Your task to perform on an android device: turn on the 24-hour format for clock Image 0: 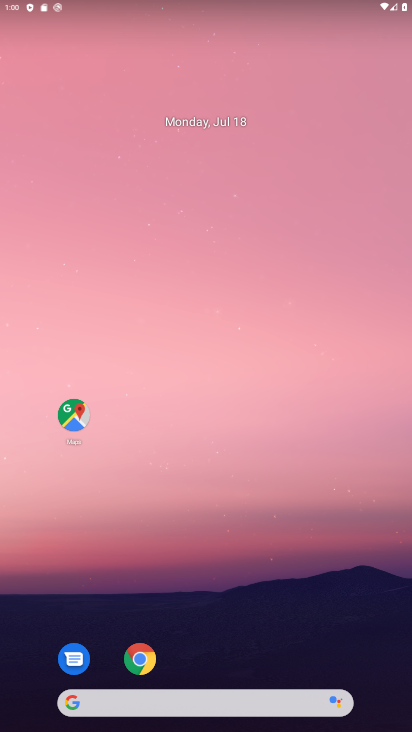
Step 0: drag from (265, 629) to (188, 134)
Your task to perform on an android device: turn on the 24-hour format for clock Image 1: 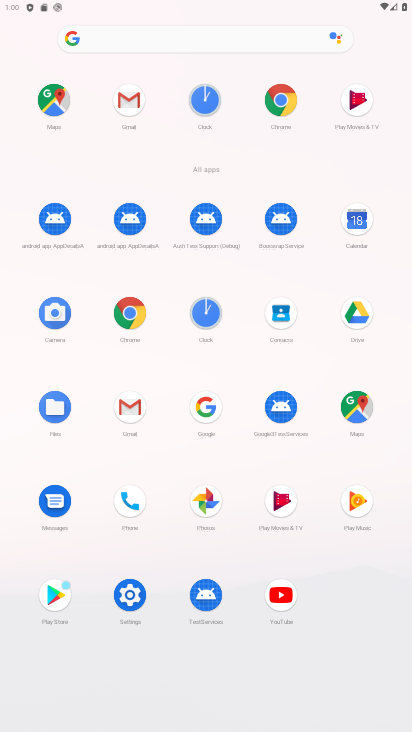
Step 1: click (210, 311)
Your task to perform on an android device: turn on the 24-hour format for clock Image 2: 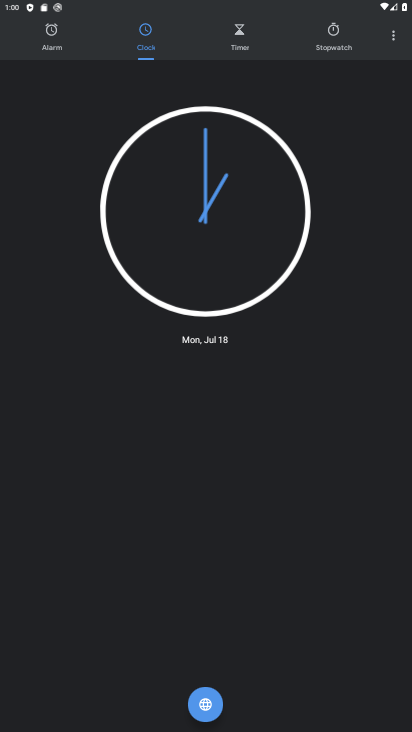
Step 2: drag from (388, 37) to (313, 67)
Your task to perform on an android device: turn on the 24-hour format for clock Image 3: 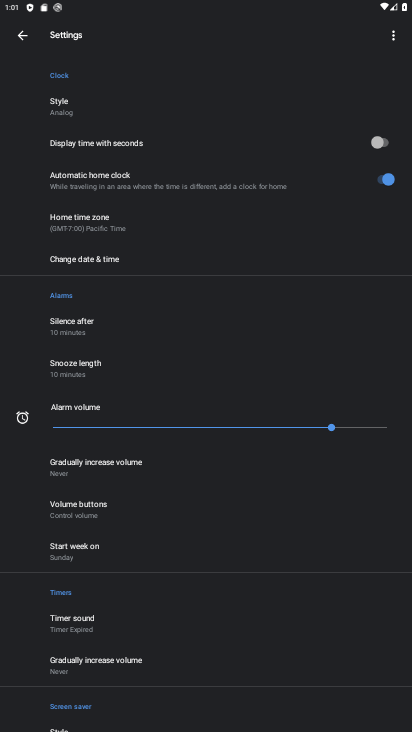
Step 3: click (108, 262)
Your task to perform on an android device: turn on the 24-hour format for clock Image 4: 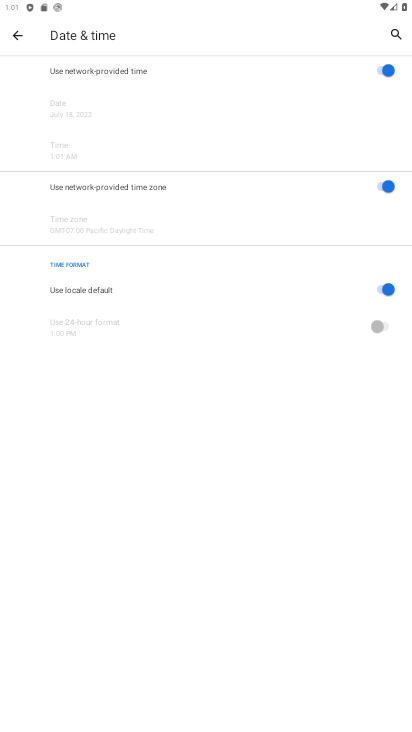
Step 4: click (390, 290)
Your task to perform on an android device: turn on the 24-hour format for clock Image 5: 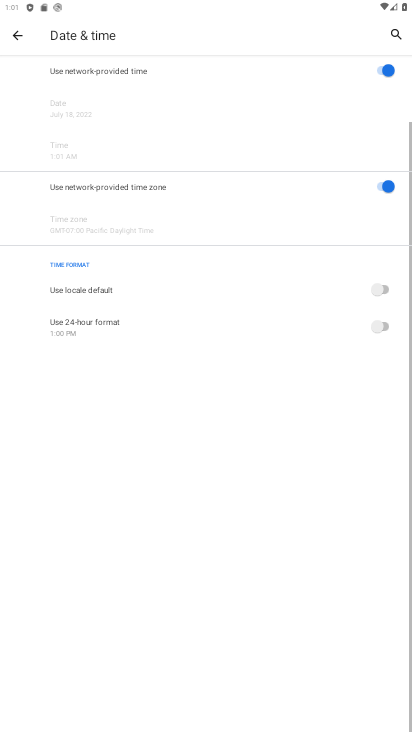
Step 5: click (380, 331)
Your task to perform on an android device: turn on the 24-hour format for clock Image 6: 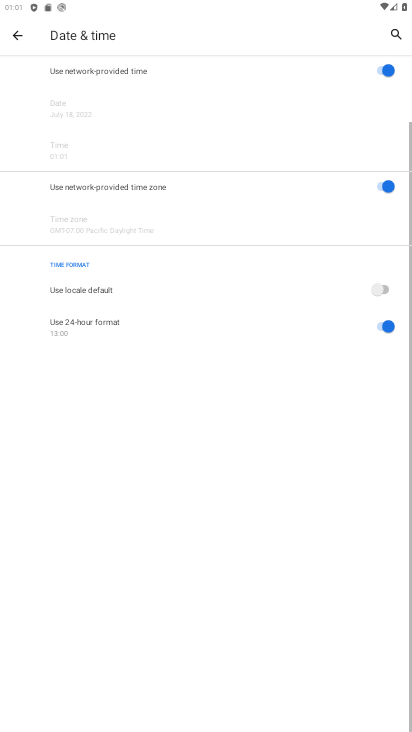
Step 6: task complete